Your task to perform on an android device: turn on improve location accuracy Image 0: 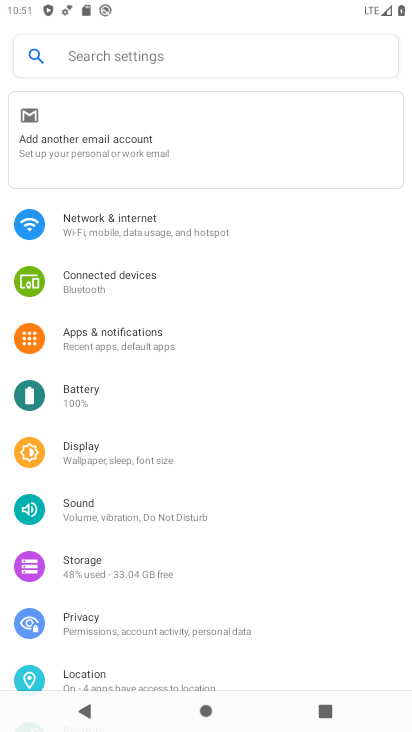
Step 0: click (93, 682)
Your task to perform on an android device: turn on improve location accuracy Image 1: 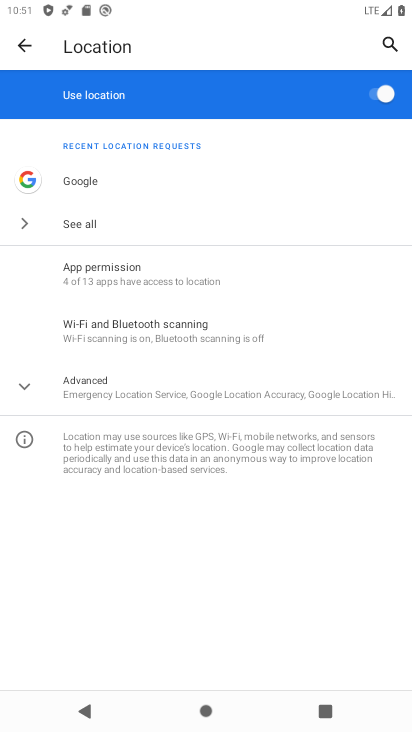
Step 1: click (121, 398)
Your task to perform on an android device: turn on improve location accuracy Image 2: 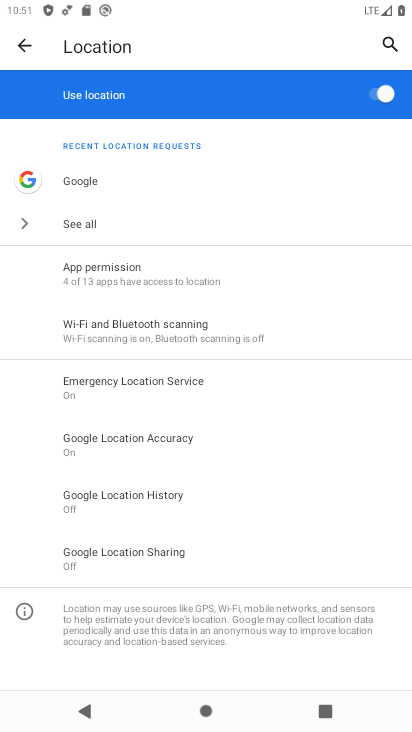
Step 2: click (121, 437)
Your task to perform on an android device: turn on improve location accuracy Image 3: 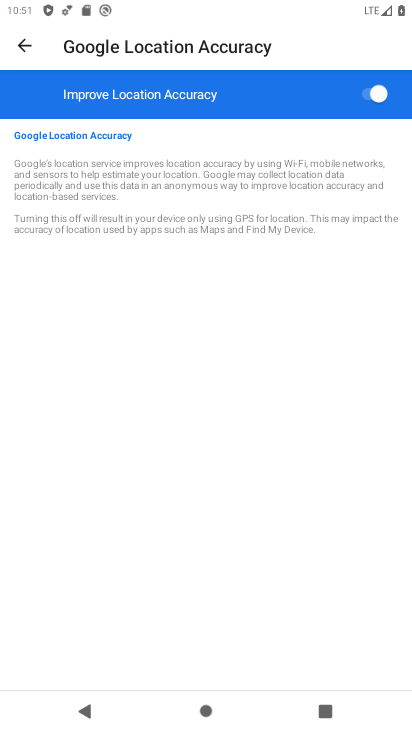
Step 3: task complete